Your task to perform on an android device: open wifi settings Image 0: 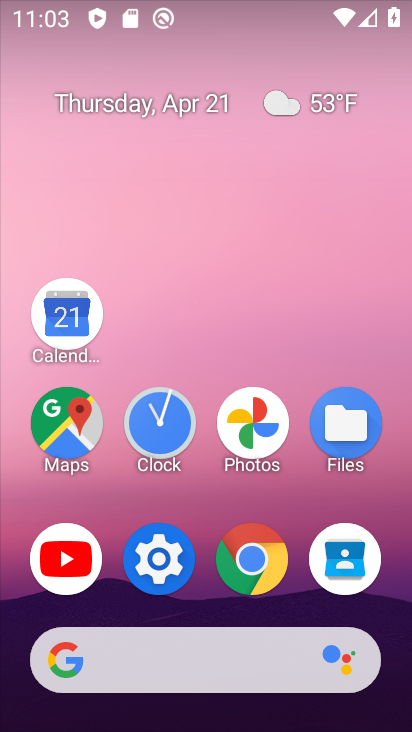
Step 0: click (161, 558)
Your task to perform on an android device: open wifi settings Image 1: 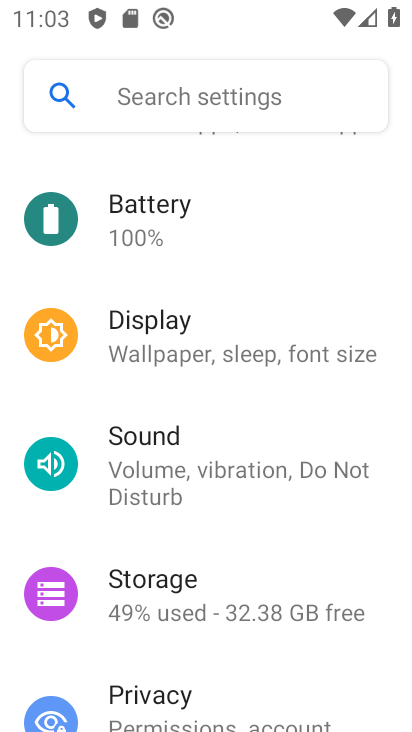
Step 1: drag from (258, 227) to (193, 692)
Your task to perform on an android device: open wifi settings Image 2: 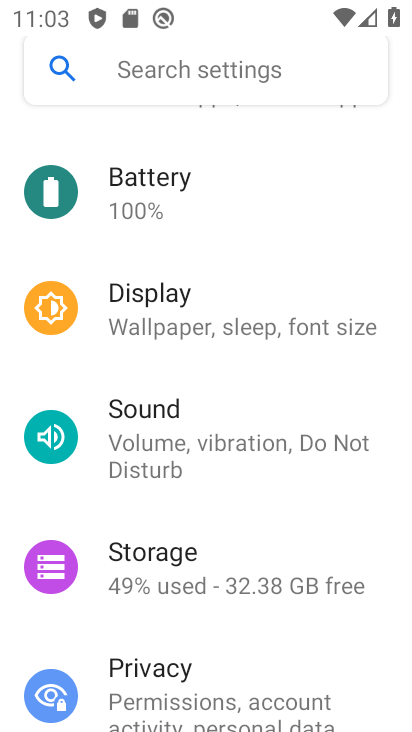
Step 2: drag from (241, 156) to (204, 649)
Your task to perform on an android device: open wifi settings Image 3: 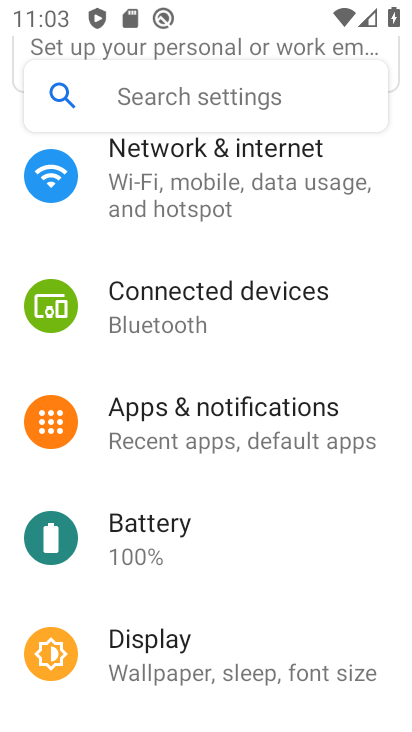
Step 3: click (160, 154)
Your task to perform on an android device: open wifi settings Image 4: 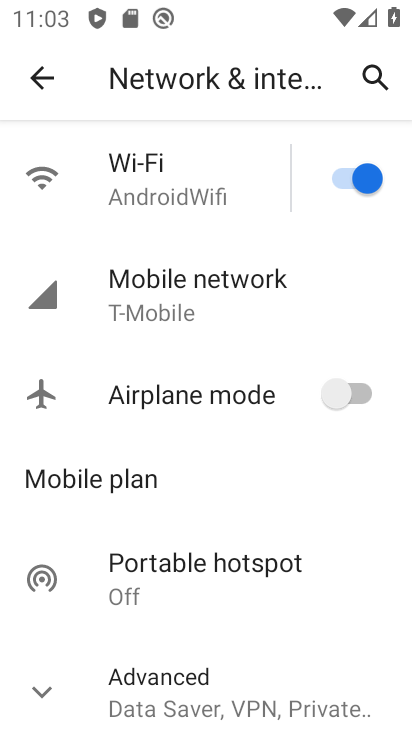
Step 4: click (157, 159)
Your task to perform on an android device: open wifi settings Image 5: 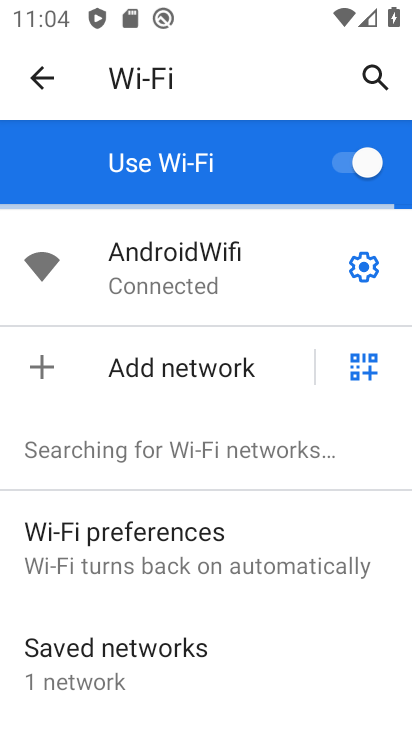
Step 5: task complete